Your task to perform on an android device: toggle pop-ups in chrome Image 0: 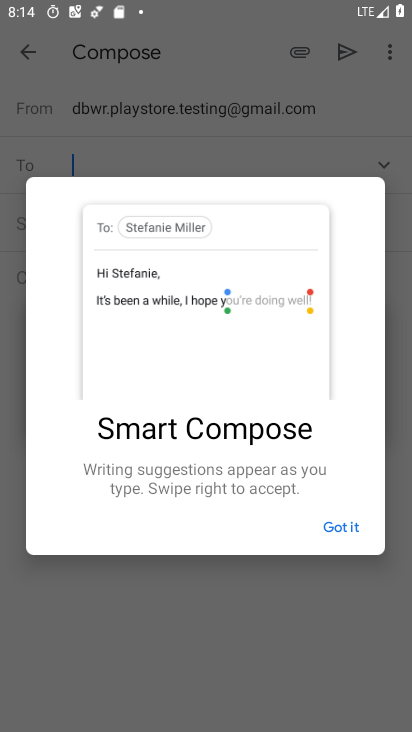
Step 0: press home button
Your task to perform on an android device: toggle pop-ups in chrome Image 1: 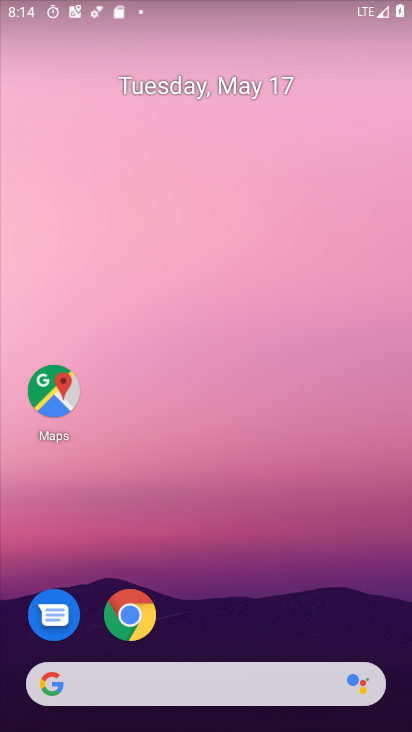
Step 1: click (125, 628)
Your task to perform on an android device: toggle pop-ups in chrome Image 2: 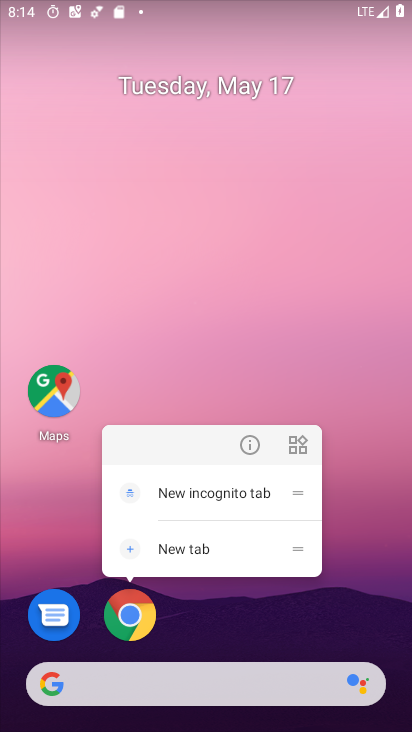
Step 2: click (144, 615)
Your task to perform on an android device: toggle pop-ups in chrome Image 3: 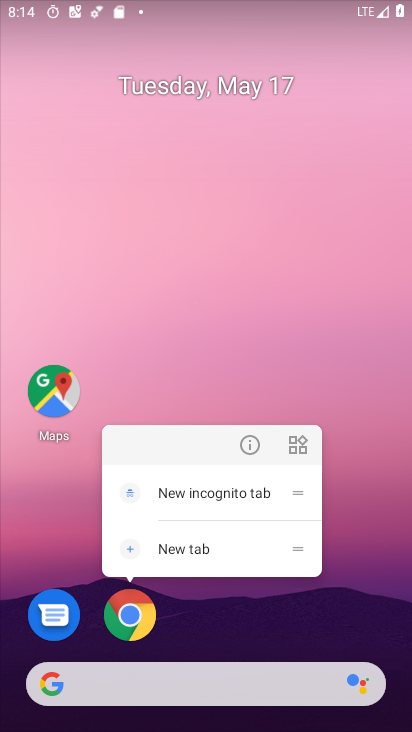
Step 3: click (144, 623)
Your task to perform on an android device: toggle pop-ups in chrome Image 4: 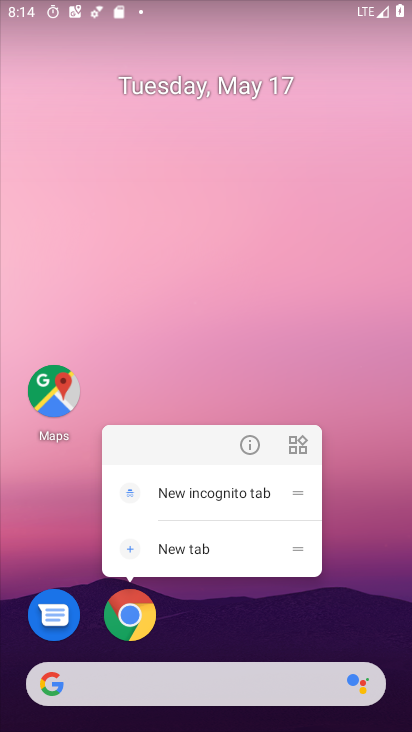
Step 4: click (133, 612)
Your task to perform on an android device: toggle pop-ups in chrome Image 5: 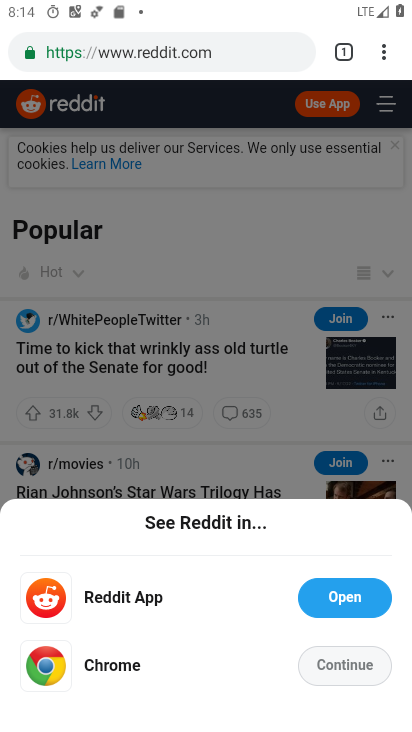
Step 5: drag from (385, 52) to (266, 583)
Your task to perform on an android device: toggle pop-ups in chrome Image 6: 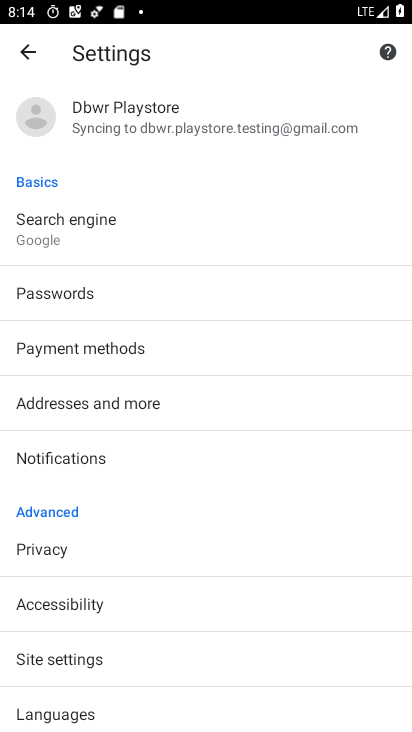
Step 6: click (37, 664)
Your task to perform on an android device: toggle pop-ups in chrome Image 7: 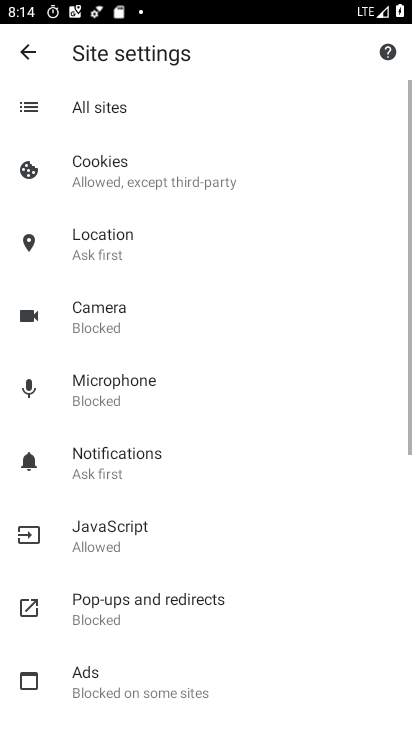
Step 7: click (103, 615)
Your task to perform on an android device: toggle pop-ups in chrome Image 8: 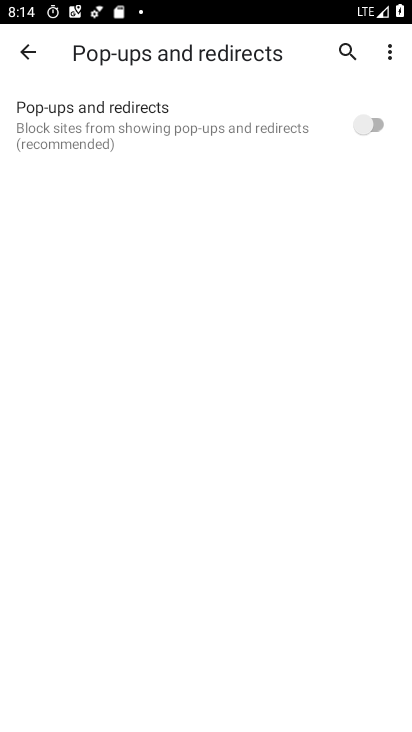
Step 8: click (373, 121)
Your task to perform on an android device: toggle pop-ups in chrome Image 9: 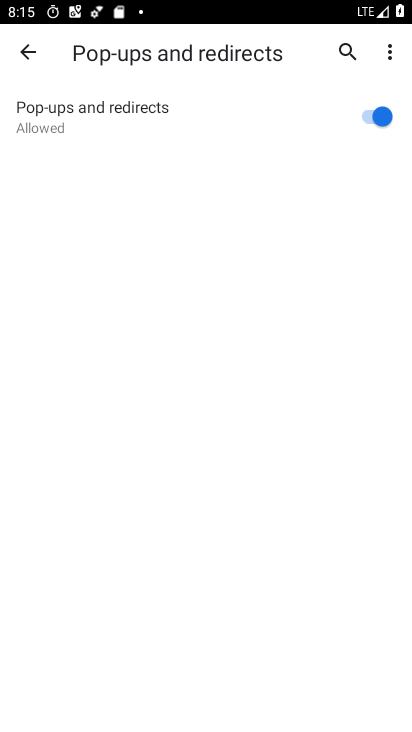
Step 9: task complete